Your task to perform on an android device: Open Chrome and go to the settings page Image 0: 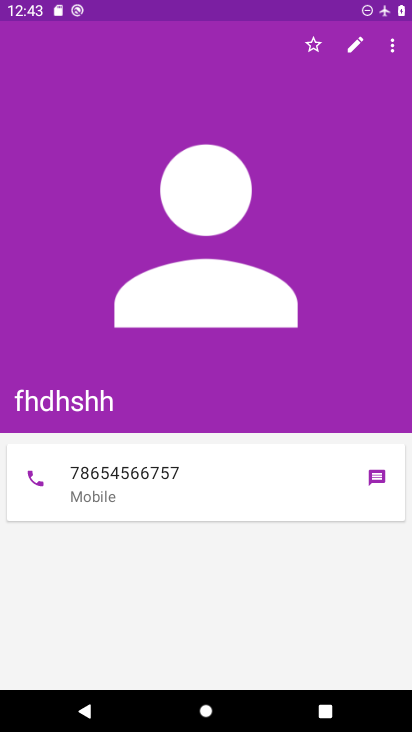
Step 0: press home button
Your task to perform on an android device: Open Chrome and go to the settings page Image 1: 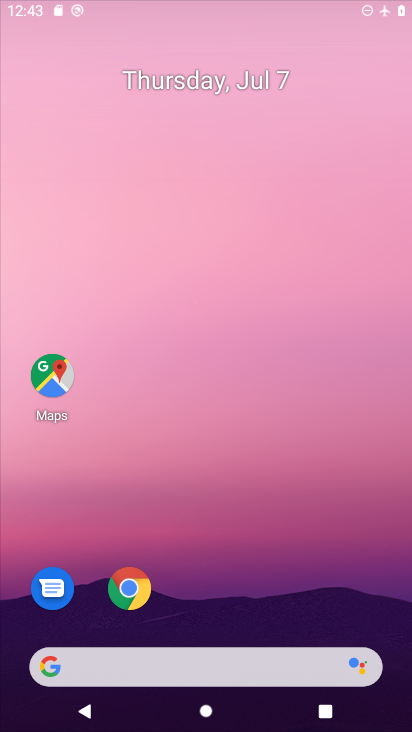
Step 1: drag from (254, 508) to (313, 69)
Your task to perform on an android device: Open Chrome and go to the settings page Image 2: 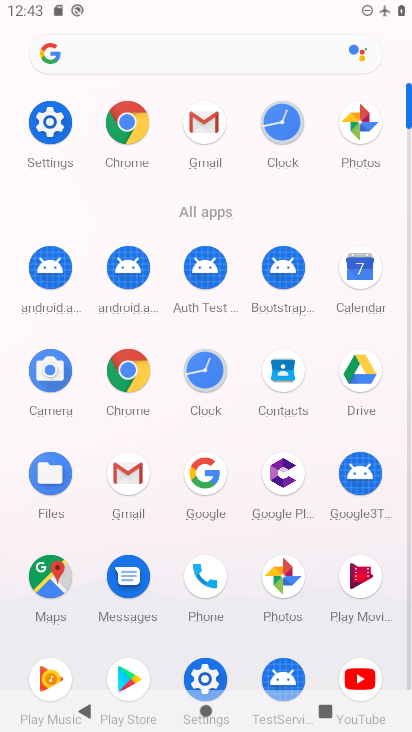
Step 2: click (135, 365)
Your task to perform on an android device: Open Chrome and go to the settings page Image 3: 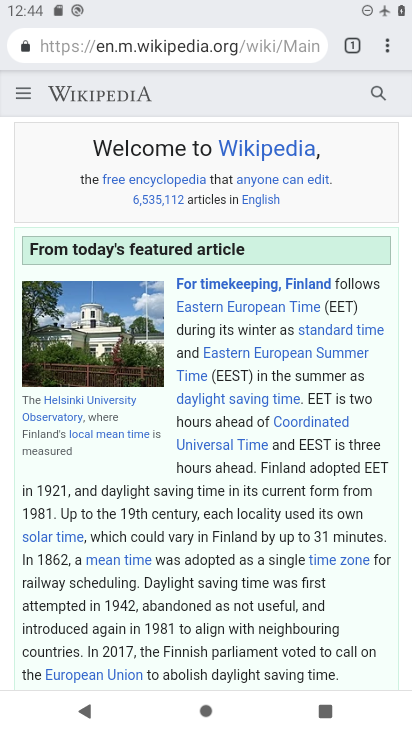
Step 3: task complete